Your task to perform on an android device: Show the shopping cart on costco.com. Add bose soundsport free to the cart on costco.com Image 0: 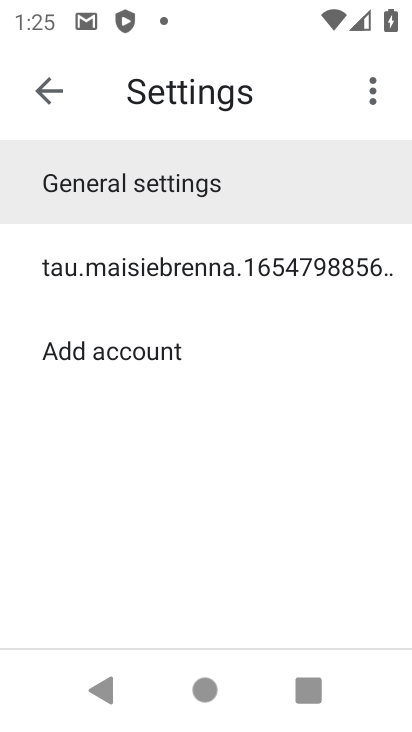
Step 0: press home button
Your task to perform on an android device: Show the shopping cart on costco.com. Add bose soundsport free to the cart on costco.com Image 1: 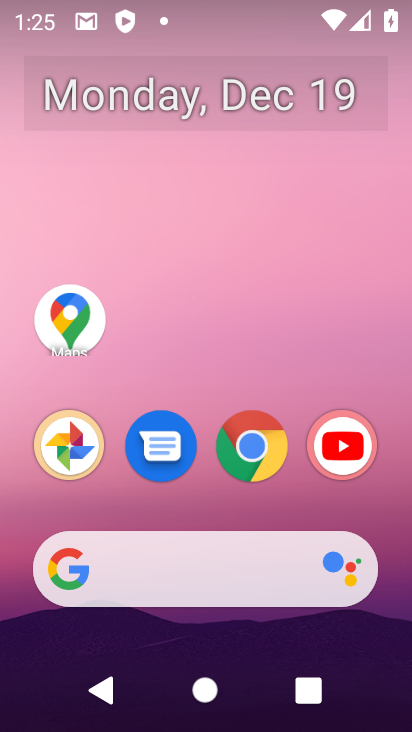
Step 1: click (265, 465)
Your task to perform on an android device: Show the shopping cart on costco.com. Add bose soundsport free to the cart on costco.com Image 2: 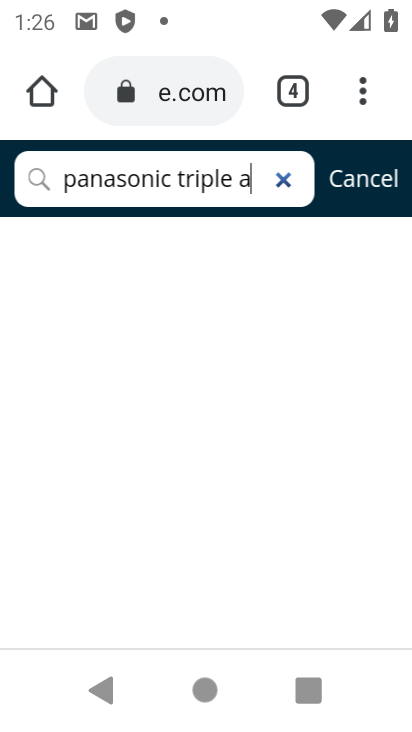
Step 2: task complete